Your task to perform on an android device: Open Chrome and go to settings Image 0: 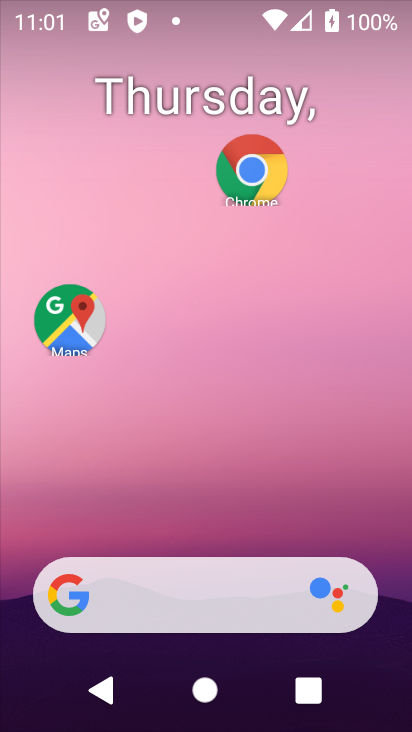
Step 0: click (258, 167)
Your task to perform on an android device: Open Chrome and go to settings Image 1: 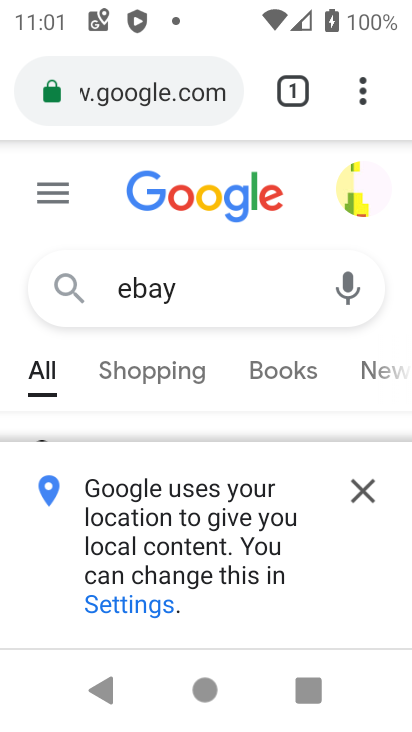
Step 1: click (366, 91)
Your task to perform on an android device: Open Chrome and go to settings Image 2: 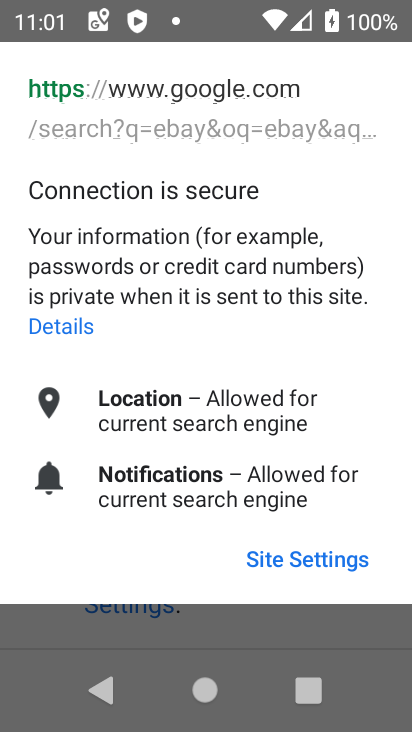
Step 2: click (295, 619)
Your task to perform on an android device: Open Chrome and go to settings Image 3: 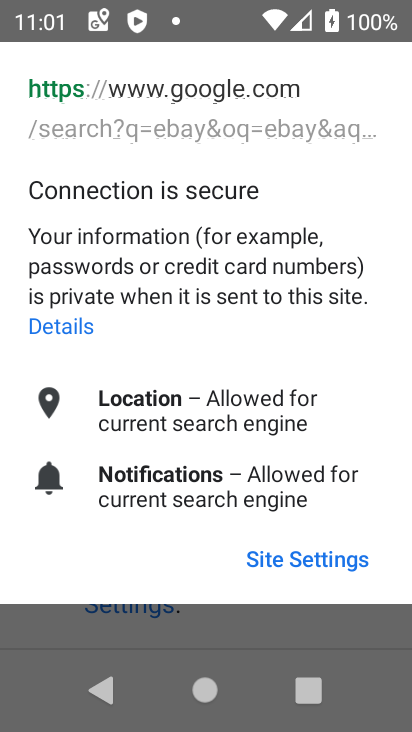
Step 3: press back button
Your task to perform on an android device: Open Chrome and go to settings Image 4: 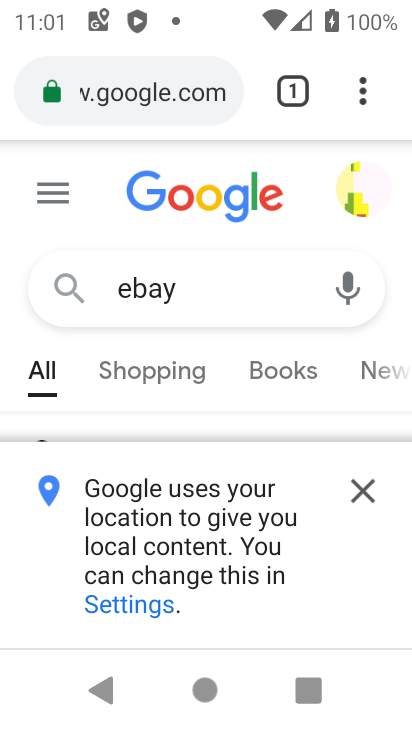
Step 4: click (365, 92)
Your task to perform on an android device: Open Chrome and go to settings Image 5: 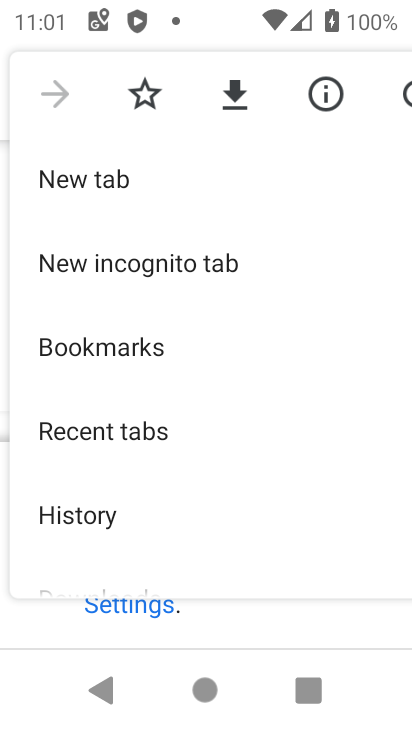
Step 5: drag from (129, 524) to (177, 230)
Your task to perform on an android device: Open Chrome and go to settings Image 6: 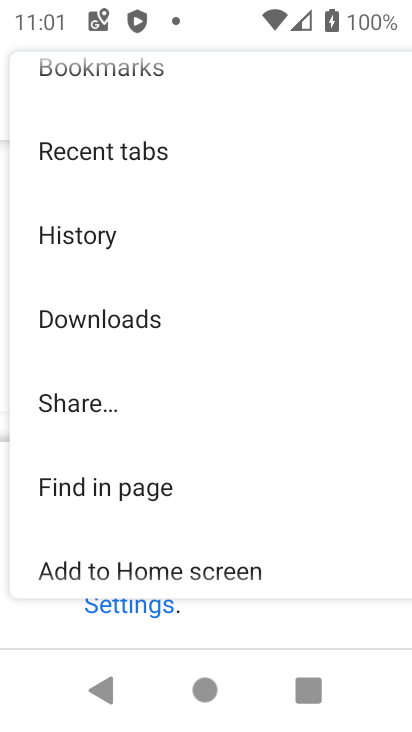
Step 6: drag from (129, 529) to (158, 270)
Your task to perform on an android device: Open Chrome and go to settings Image 7: 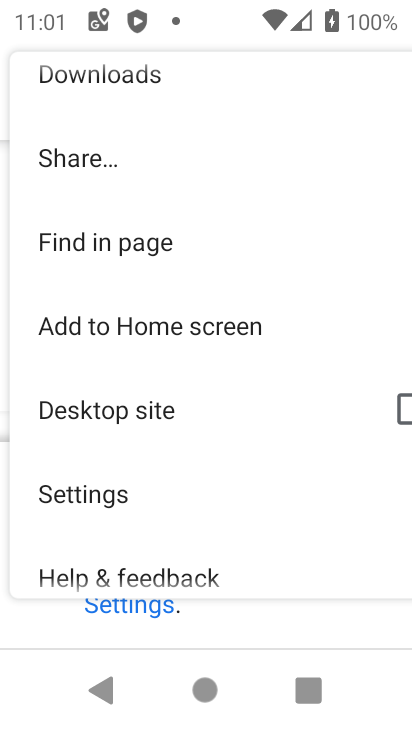
Step 7: click (90, 497)
Your task to perform on an android device: Open Chrome and go to settings Image 8: 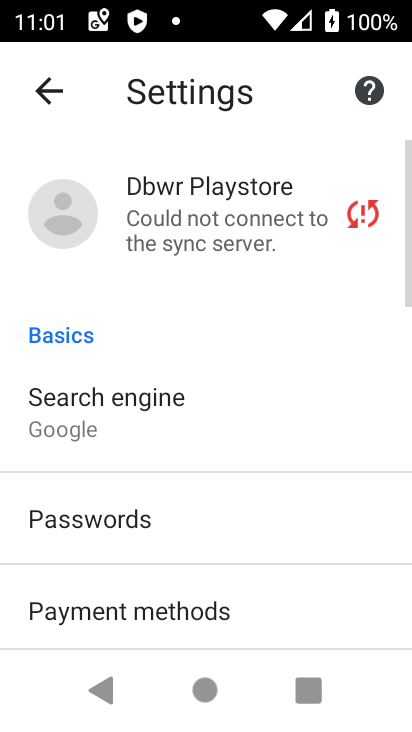
Step 8: task complete